Your task to perform on an android device: Clear the shopping cart on target. Add "usb-c to usb-a" to the cart on target, then select checkout. Image 0: 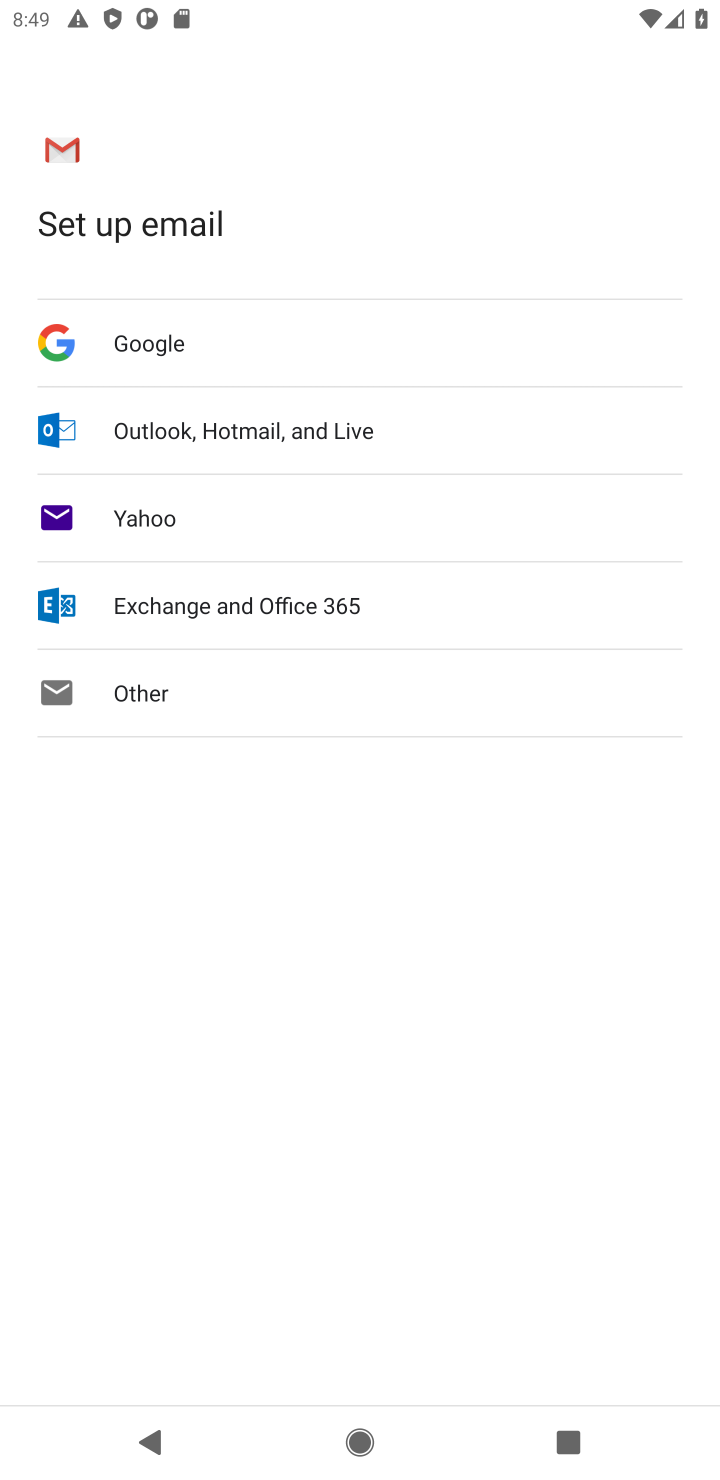
Step 0: press home button
Your task to perform on an android device: Clear the shopping cart on target. Add "usb-c to usb-a" to the cart on target, then select checkout. Image 1: 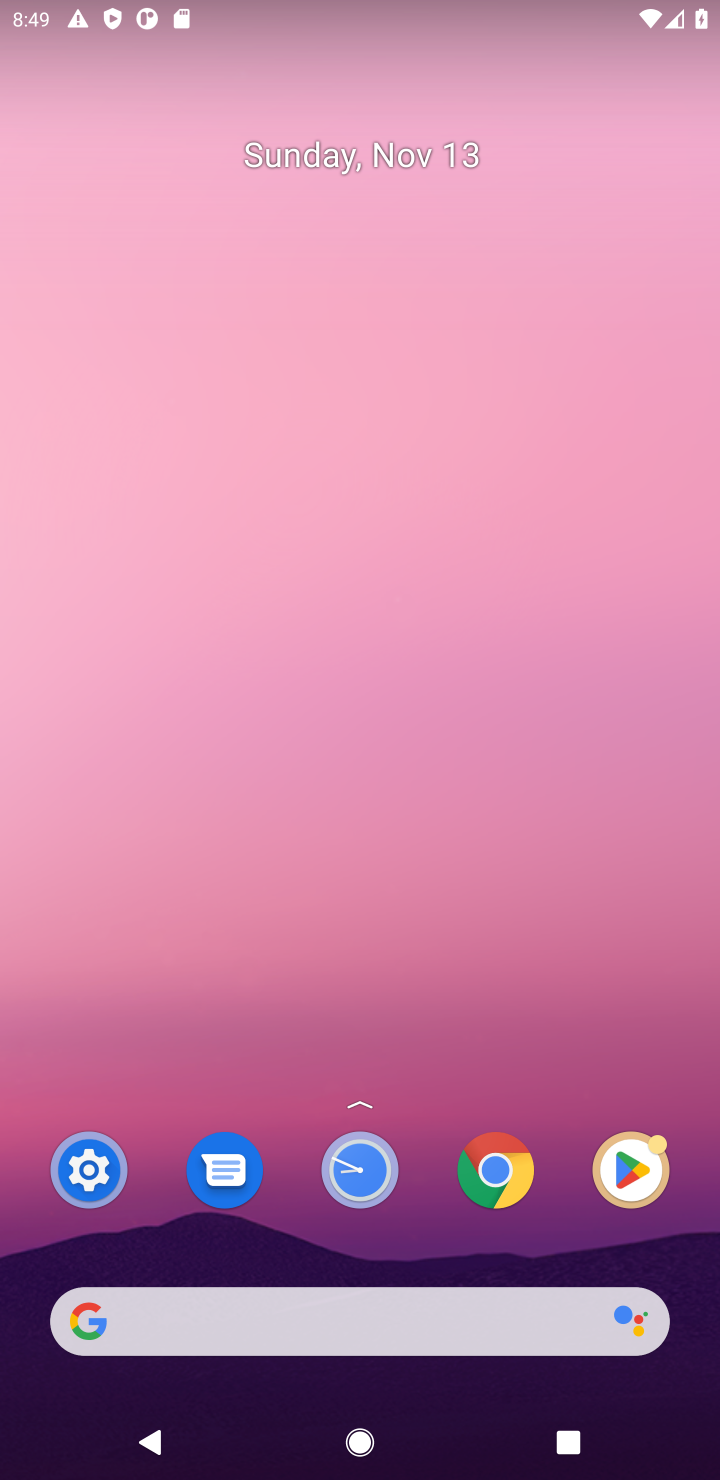
Step 1: click (345, 1340)
Your task to perform on an android device: Clear the shopping cart on target. Add "usb-c to usb-a" to the cart on target, then select checkout. Image 2: 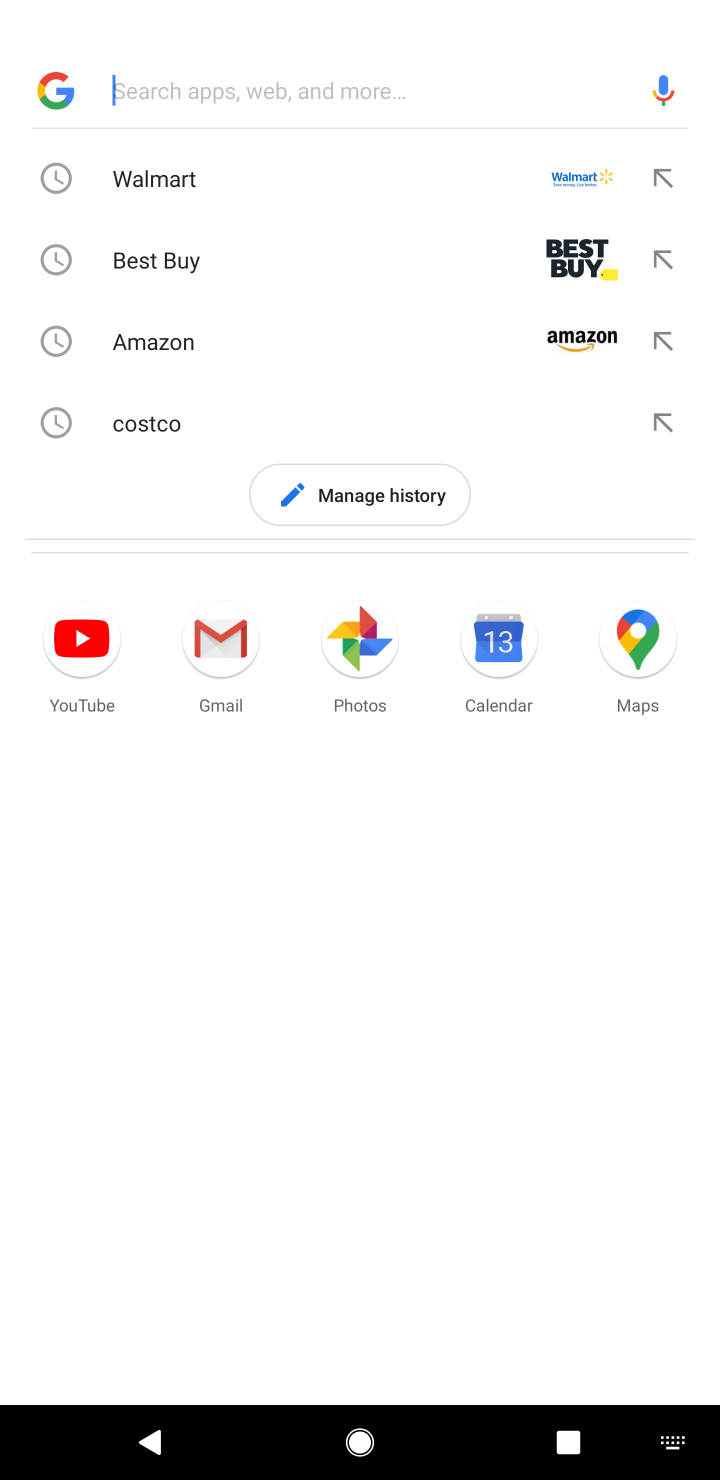
Step 2: type "target.com"
Your task to perform on an android device: Clear the shopping cart on target. Add "usb-c to usb-a" to the cart on target, then select checkout. Image 3: 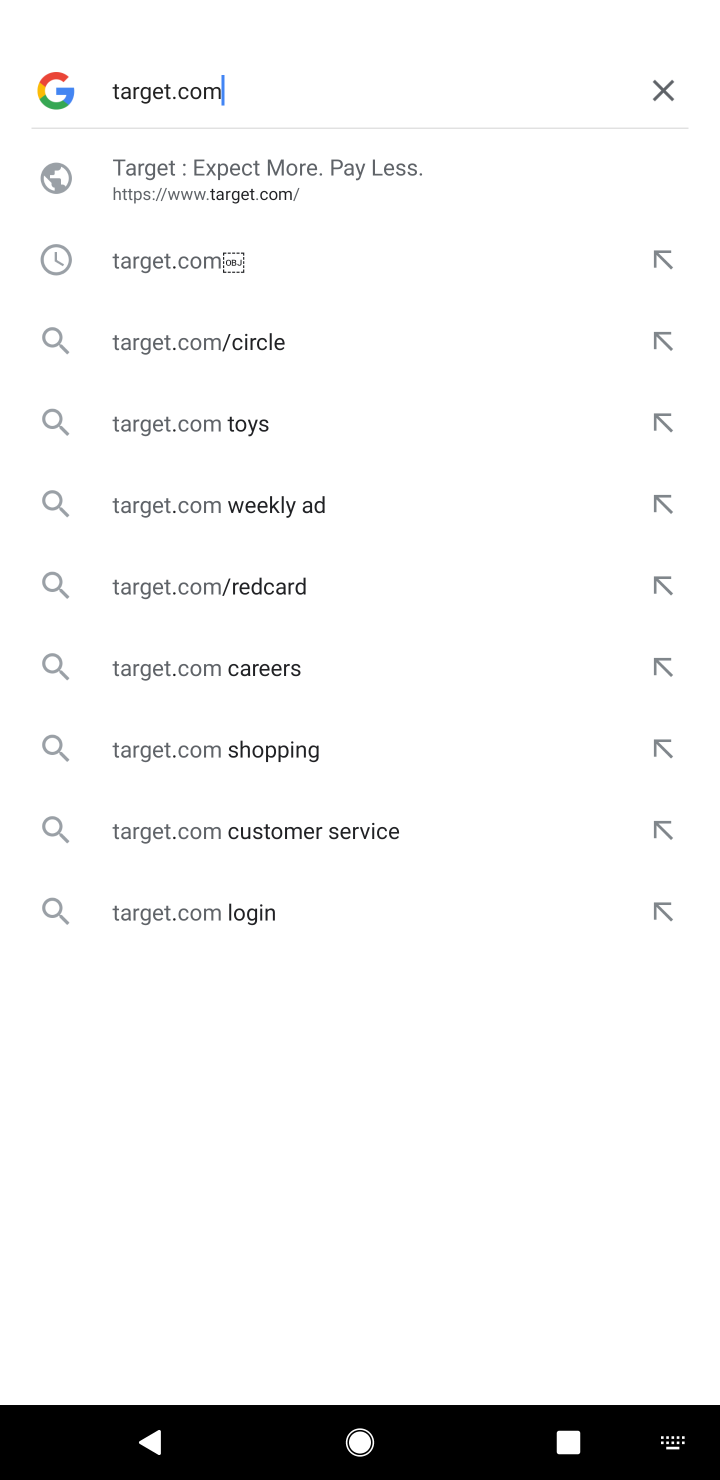
Step 3: click (228, 203)
Your task to perform on an android device: Clear the shopping cart on target. Add "usb-c to usb-a" to the cart on target, then select checkout. Image 4: 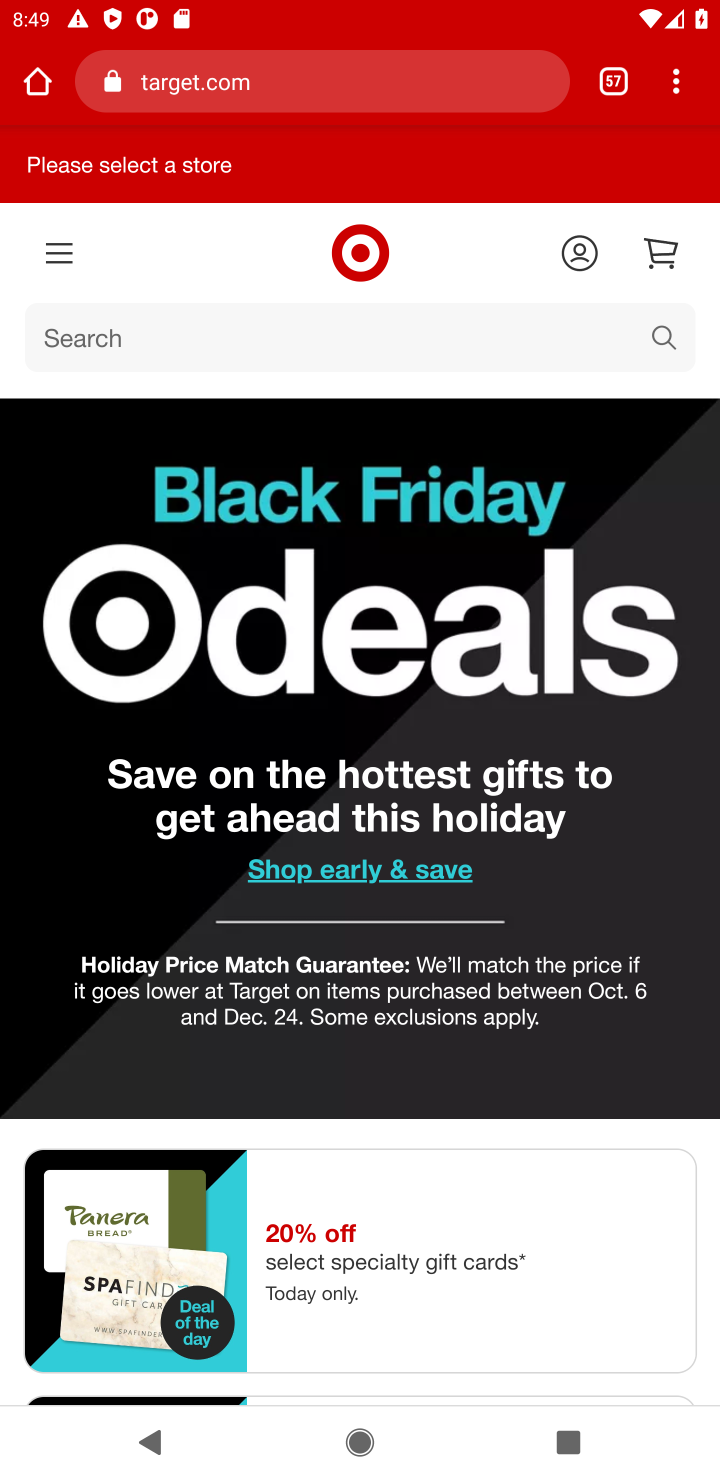
Step 4: task complete